Your task to perform on an android device: set the timer Image 0: 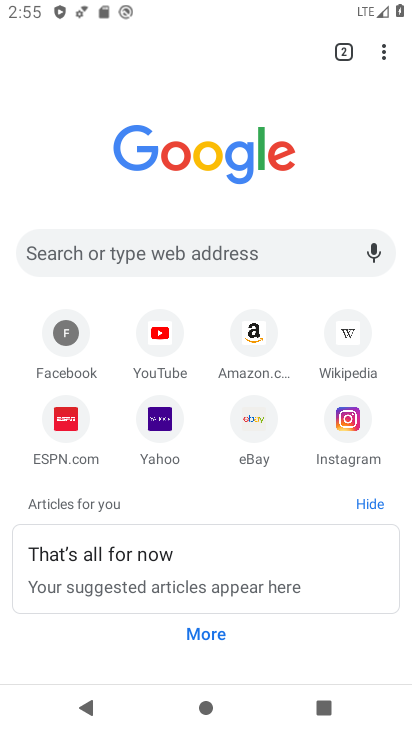
Step 0: press home button
Your task to perform on an android device: set the timer Image 1: 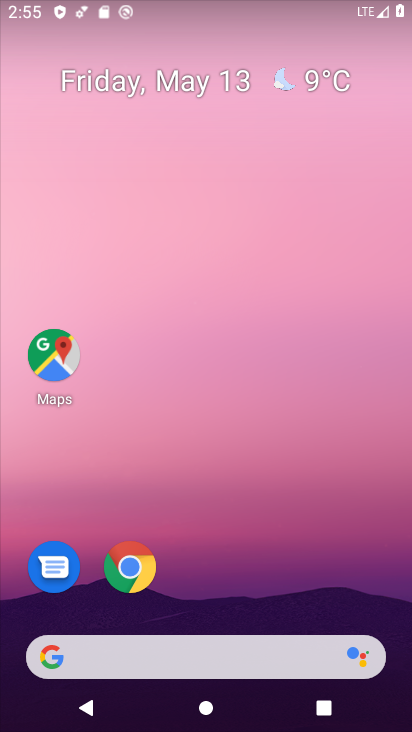
Step 1: drag from (229, 601) to (244, 2)
Your task to perform on an android device: set the timer Image 2: 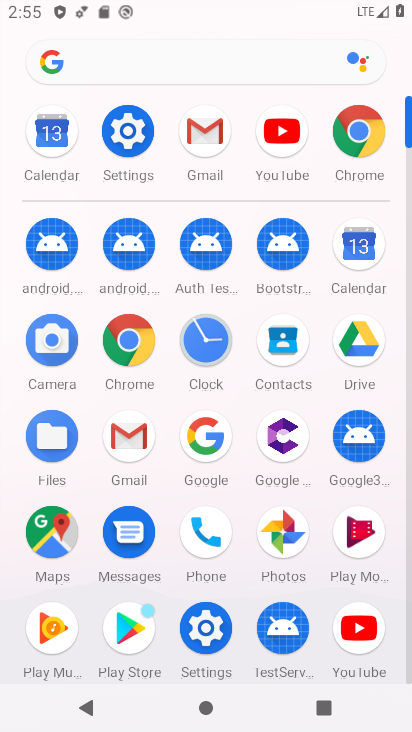
Step 2: click (201, 342)
Your task to perform on an android device: set the timer Image 3: 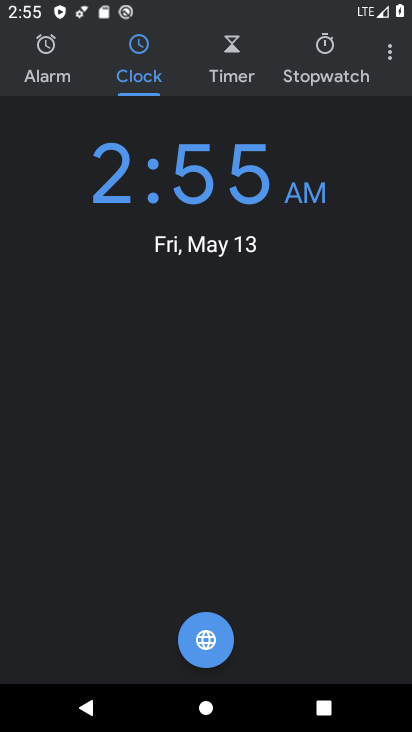
Step 3: click (221, 77)
Your task to perform on an android device: set the timer Image 4: 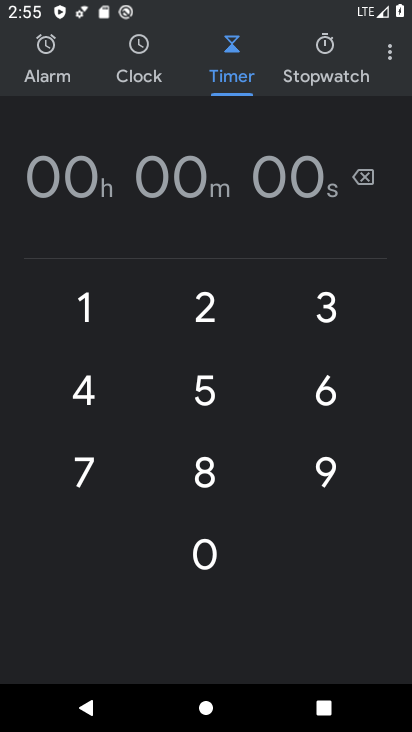
Step 4: click (95, 392)
Your task to perform on an android device: set the timer Image 5: 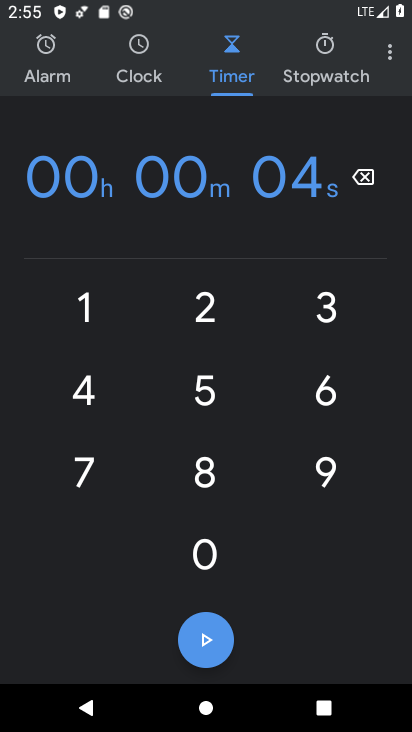
Step 5: click (200, 390)
Your task to perform on an android device: set the timer Image 6: 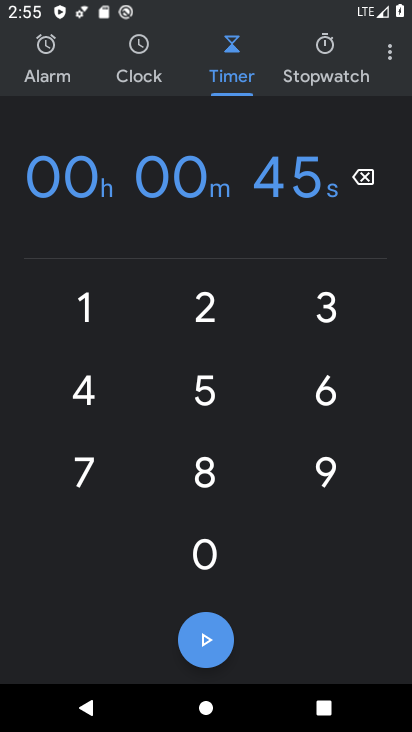
Step 6: click (206, 548)
Your task to perform on an android device: set the timer Image 7: 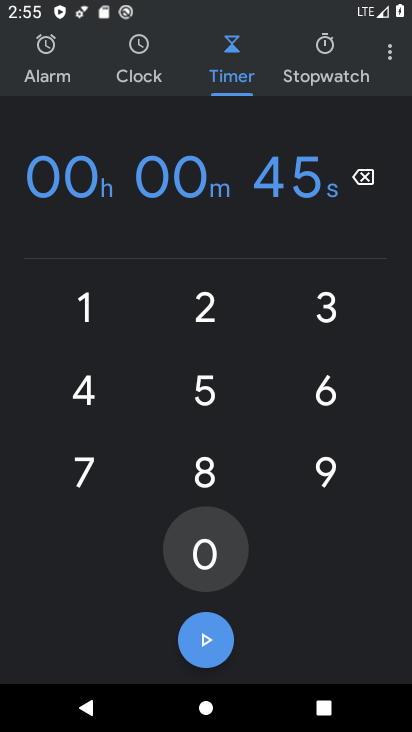
Step 7: click (206, 548)
Your task to perform on an android device: set the timer Image 8: 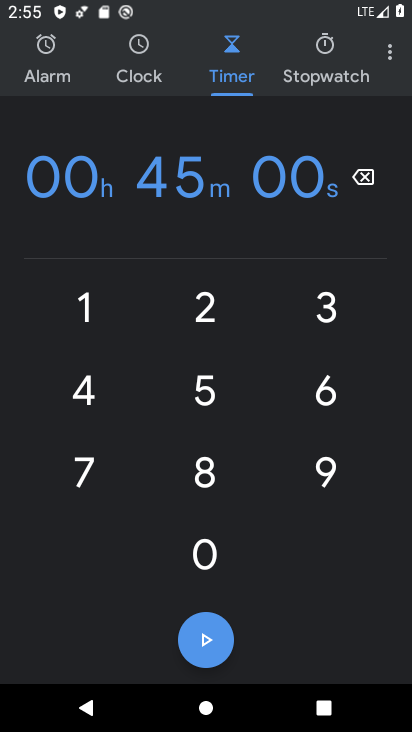
Step 8: click (209, 640)
Your task to perform on an android device: set the timer Image 9: 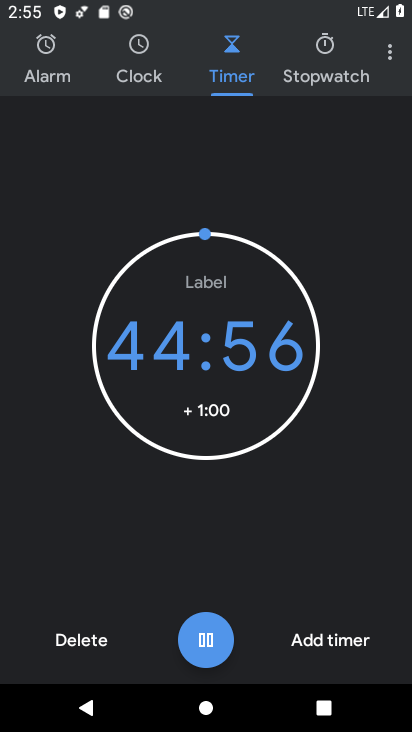
Step 9: task complete